Your task to perform on an android device: Open display settings Image 0: 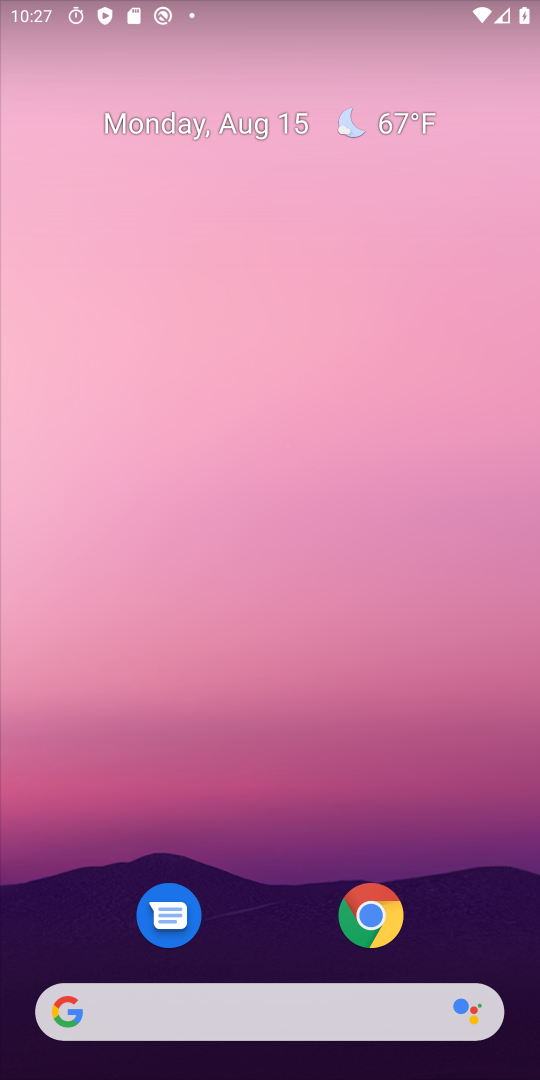
Step 0: drag from (298, 918) to (317, 233)
Your task to perform on an android device: Open display settings Image 1: 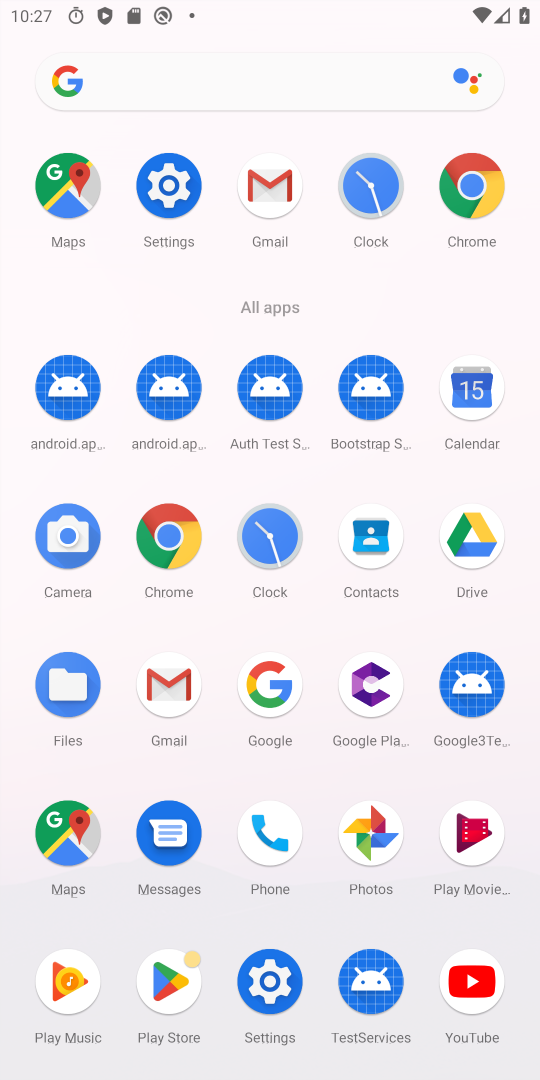
Step 1: click (274, 1000)
Your task to perform on an android device: Open display settings Image 2: 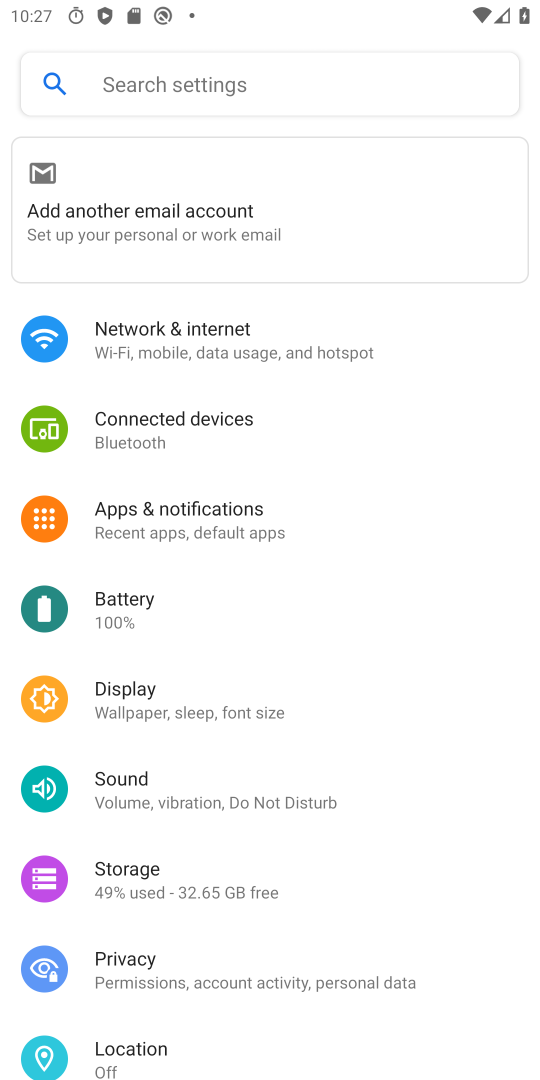
Step 2: click (145, 696)
Your task to perform on an android device: Open display settings Image 3: 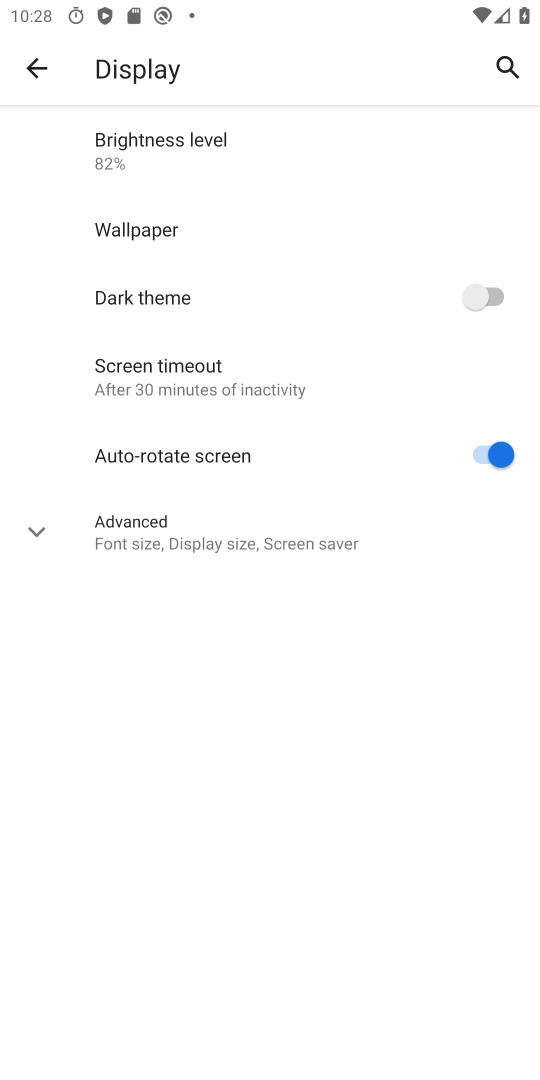
Step 3: task complete